Your task to perform on an android device: show emergency info Image 0: 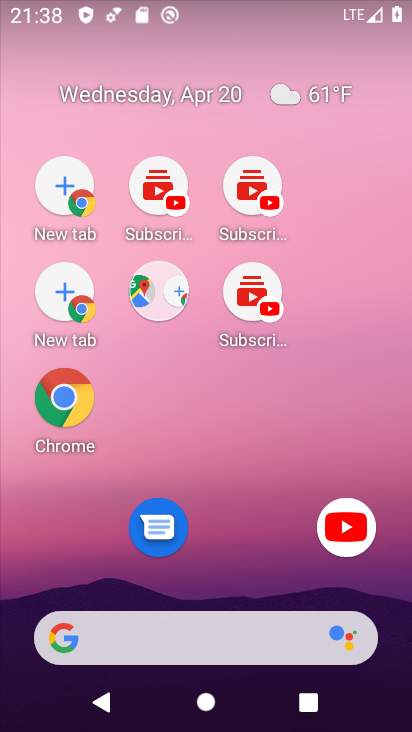
Step 0: drag from (234, 712) to (158, 134)
Your task to perform on an android device: show emergency info Image 1: 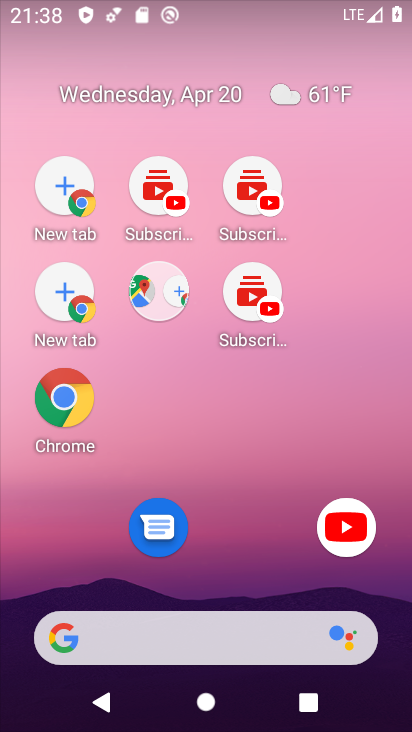
Step 1: drag from (276, 698) to (230, 208)
Your task to perform on an android device: show emergency info Image 2: 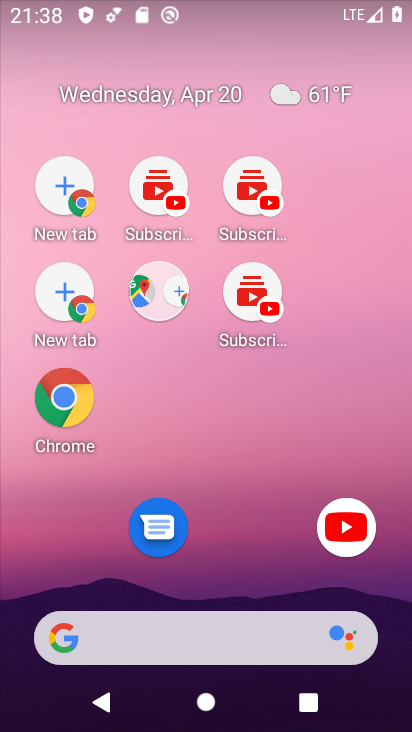
Step 2: drag from (227, 431) to (162, 168)
Your task to perform on an android device: show emergency info Image 3: 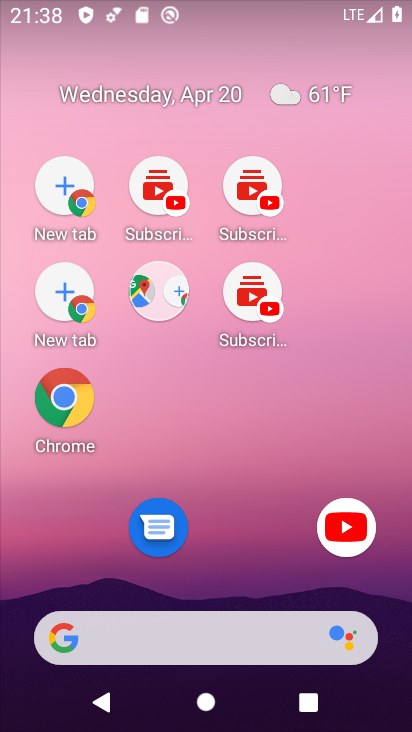
Step 3: drag from (235, 376) to (210, 193)
Your task to perform on an android device: show emergency info Image 4: 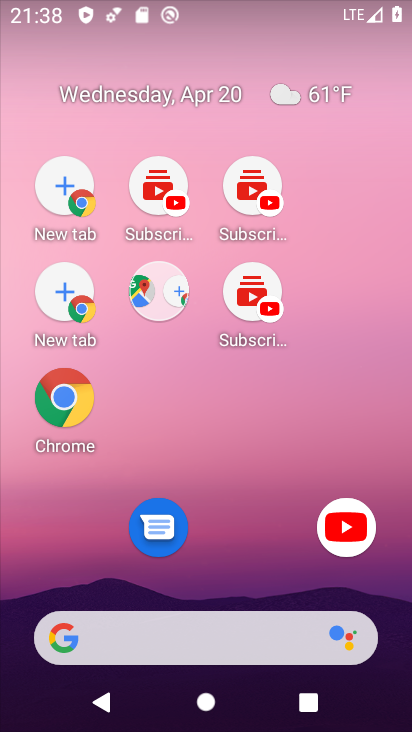
Step 4: drag from (290, 553) to (141, 107)
Your task to perform on an android device: show emergency info Image 5: 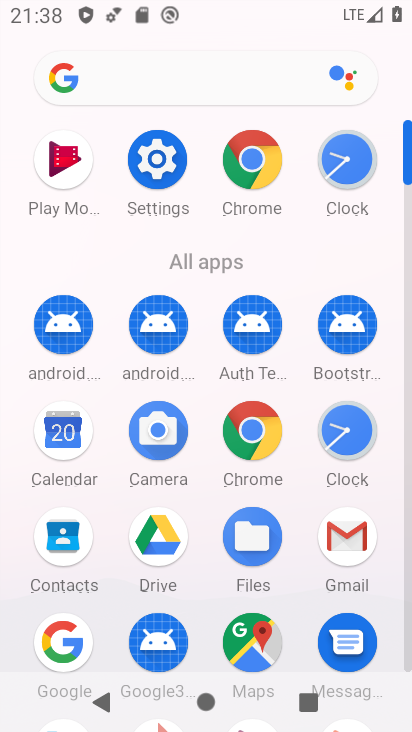
Step 5: click (145, 164)
Your task to perform on an android device: show emergency info Image 6: 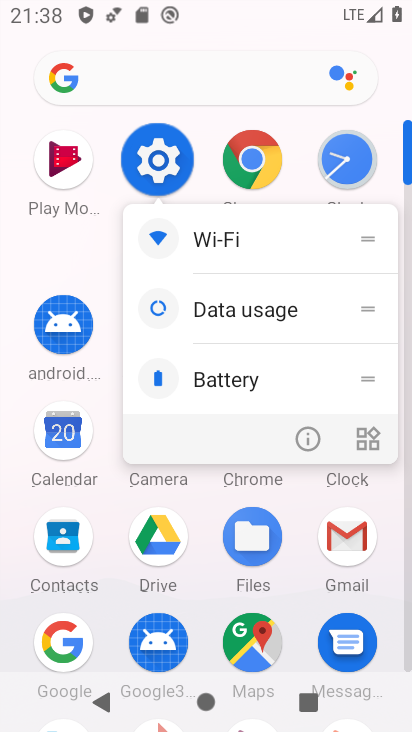
Step 6: click (150, 159)
Your task to perform on an android device: show emergency info Image 7: 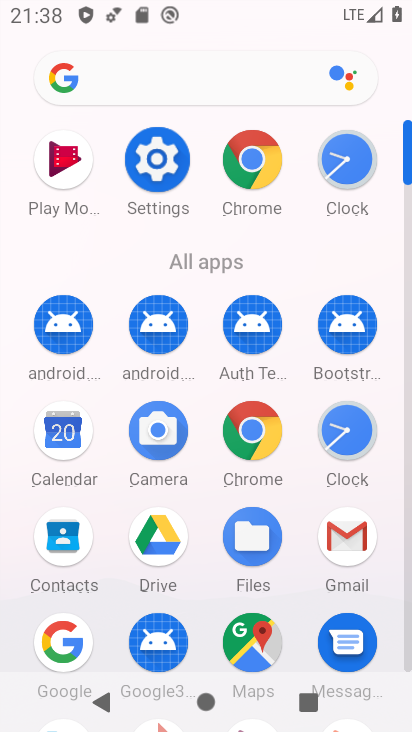
Step 7: click (156, 155)
Your task to perform on an android device: show emergency info Image 8: 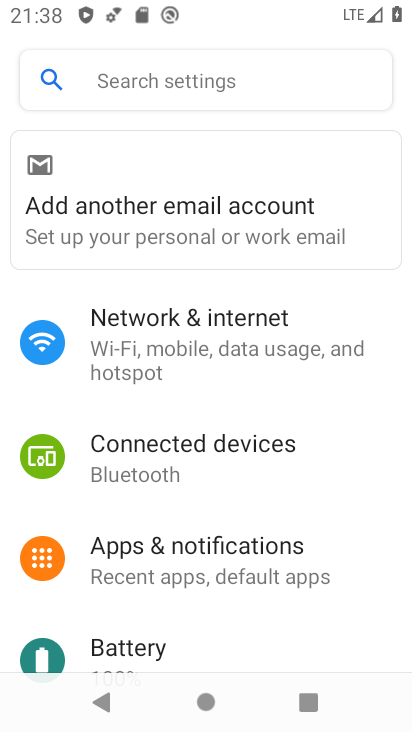
Step 8: drag from (174, 298) to (224, 342)
Your task to perform on an android device: show emergency info Image 9: 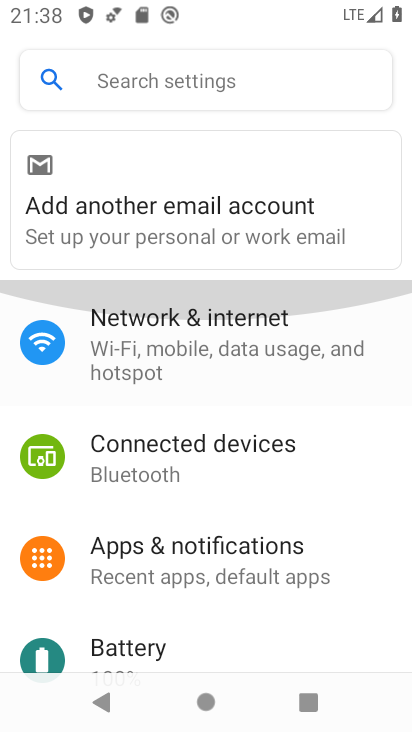
Step 9: drag from (257, 522) to (228, 281)
Your task to perform on an android device: show emergency info Image 10: 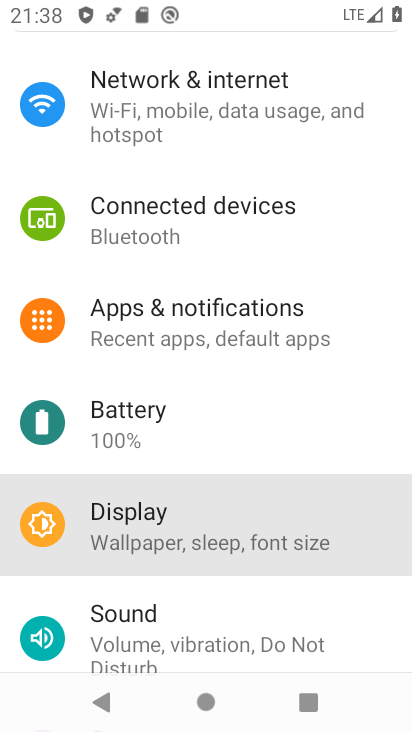
Step 10: drag from (215, 532) to (211, 297)
Your task to perform on an android device: show emergency info Image 11: 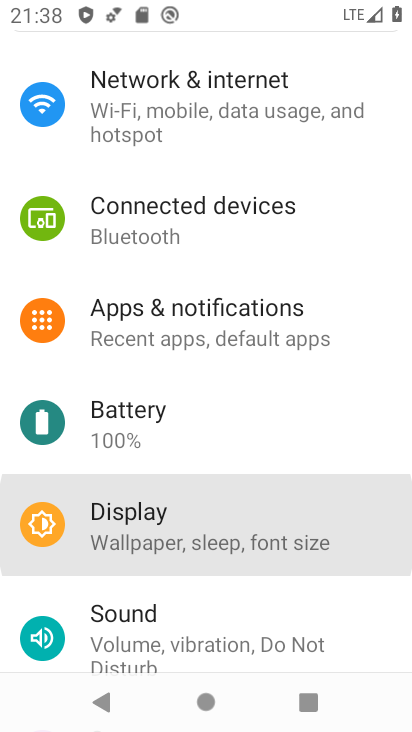
Step 11: drag from (211, 504) to (164, 175)
Your task to perform on an android device: show emergency info Image 12: 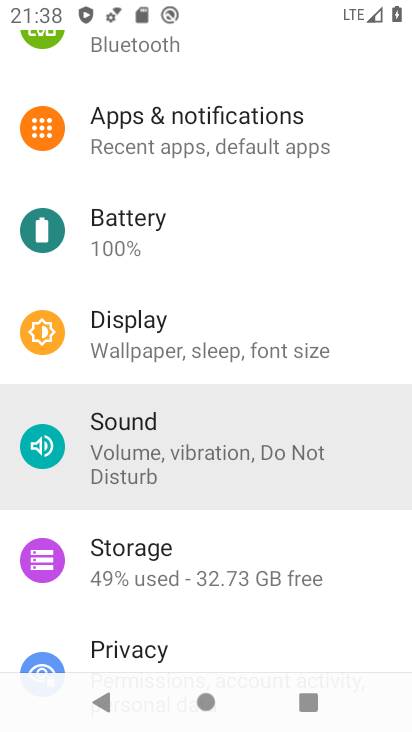
Step 12: drag from (146, 520) to (150, 139)
Your task to perform on an android device: show emergency info Image 13: 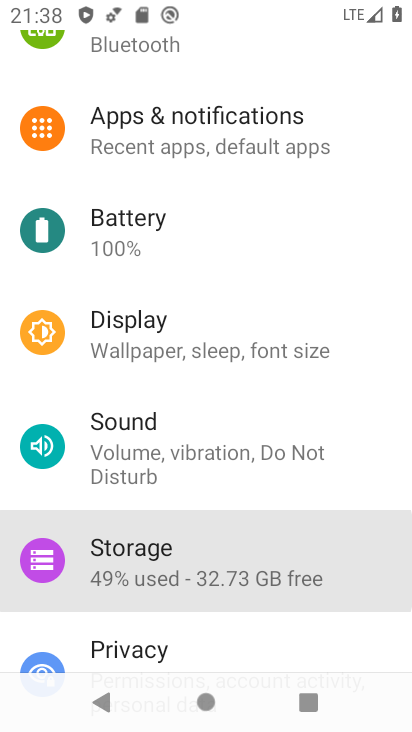
Step 13: drag from (166, 527) to (176, 237)
Your task to perform on an android device: show emergency info Image 14: 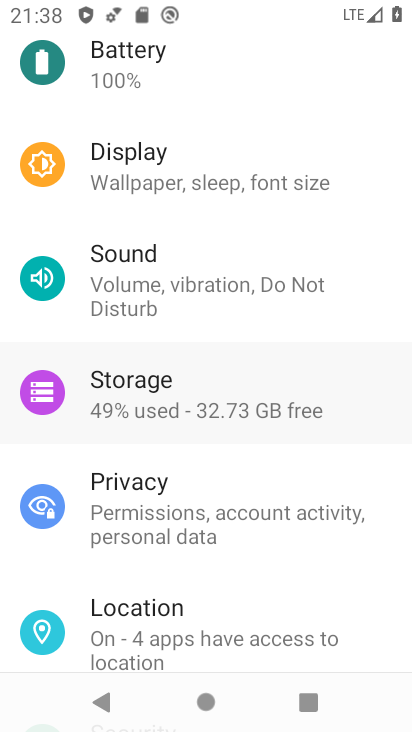
Step 14: drag from (202, 349) to (202, 205)
Your task to perform on an android device: show emergency info Image 15: 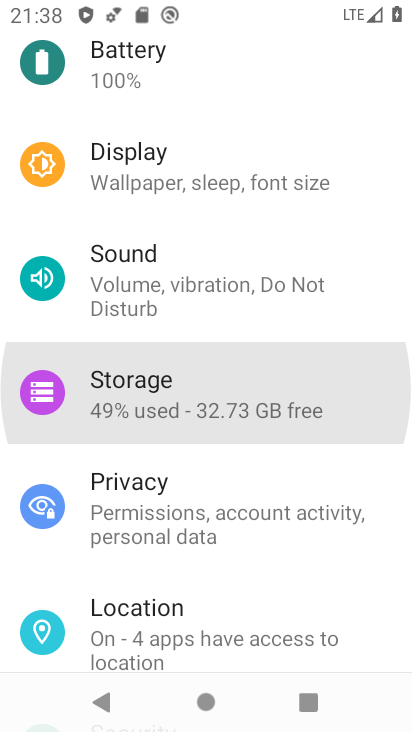
Step 15: drag from (174, 527) to (171, 245)
Your task to perform on an android device: show emergency info Image 16: 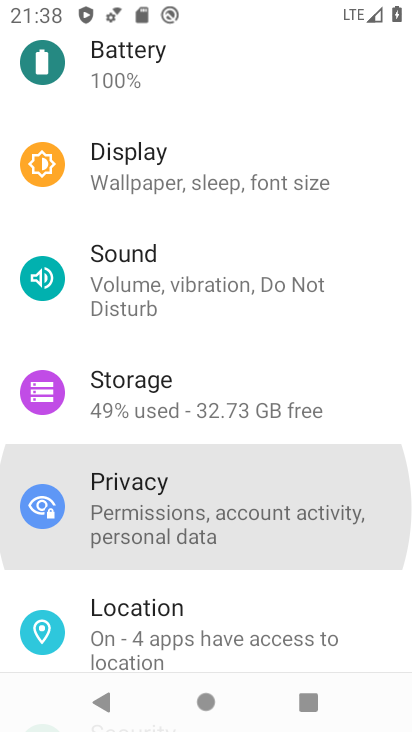
Step 16: drag from (191, 546) to (197, 185)
Your task to perform on an android device: show emergency info Image 17: 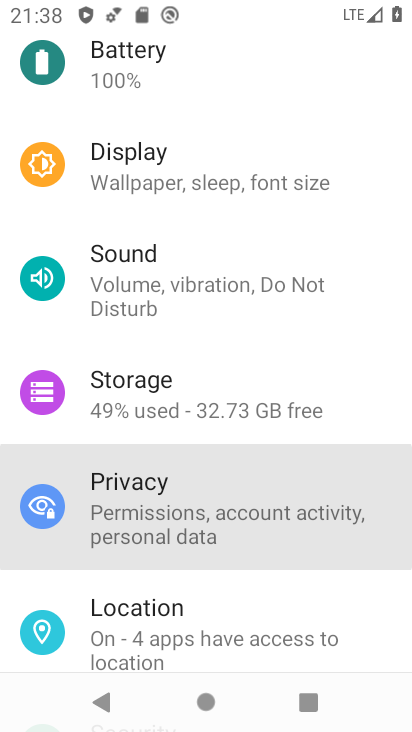
Step 17: drag from (192, 380) to (192, 196)
Your task to perform on an android device: show emergency info Image 18: 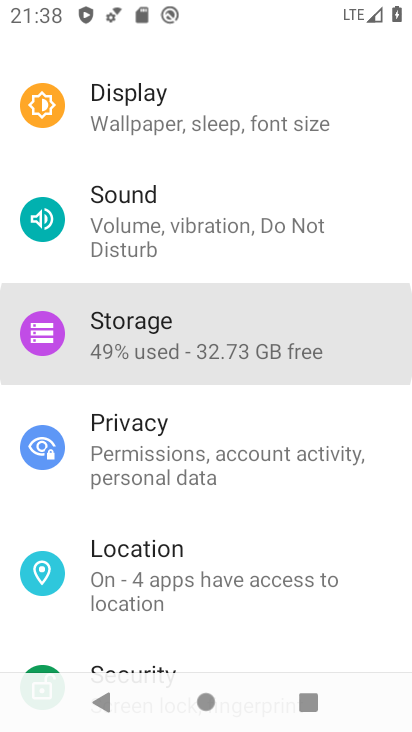
Step 18: drag from (214, 444) to (214, 213)
Your task to perform on an android device: show emergency info Image 19: 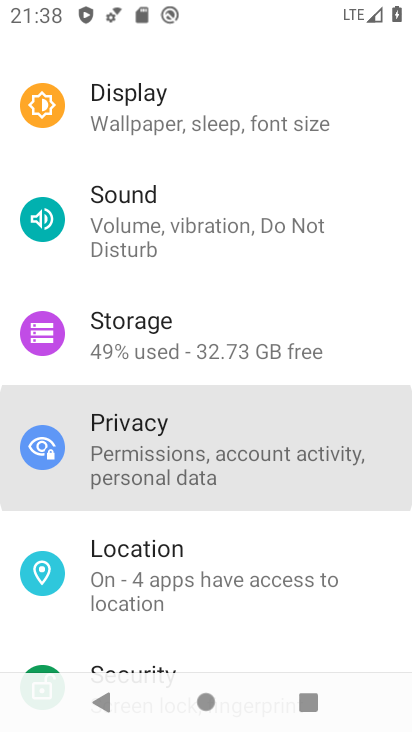
Step 19: drag from (220, 376) to (235, 105)
Your task to perform on an android device: show emergency info Image 20: 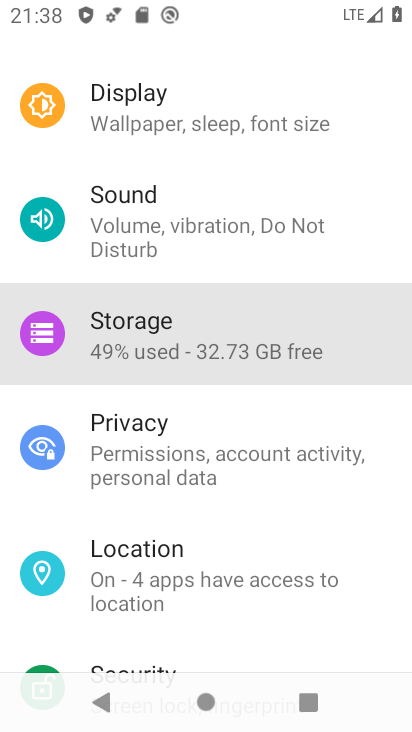
Step 20: drag from (176, 283) to (176, 156)
Your task to perform on an android device: show emergency info Image 21: 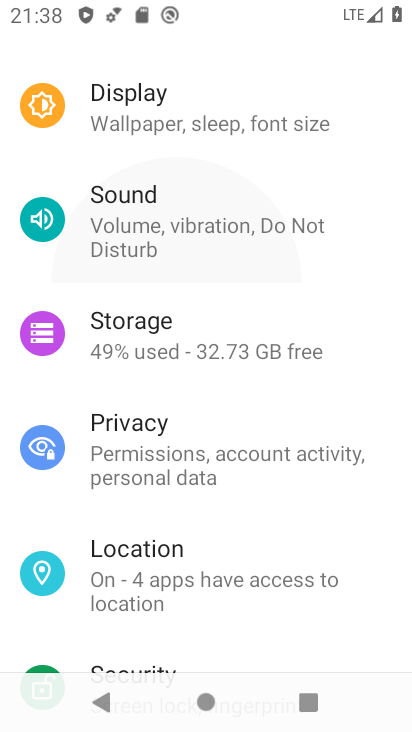
Step 21: drag from (252, 509) to (242, 91)
Your task to perform on an android device: show emergency info Image 22: 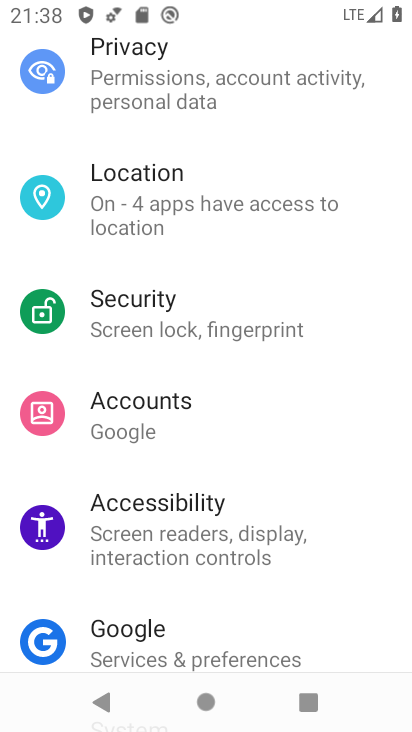
Step 22: drag from (253, 542) to (277, 110)
Your task to perform on an android device: show emergency info Image 23: 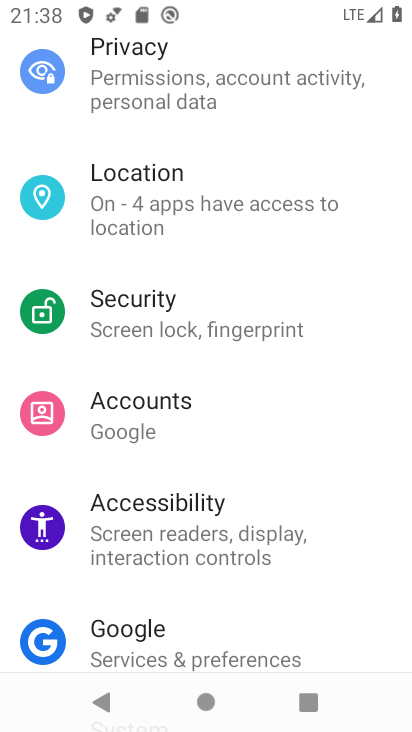
Step 23: drag from (178, 549) to (190, 208)
Your task to perform on an android device: show emergency info Image 24: 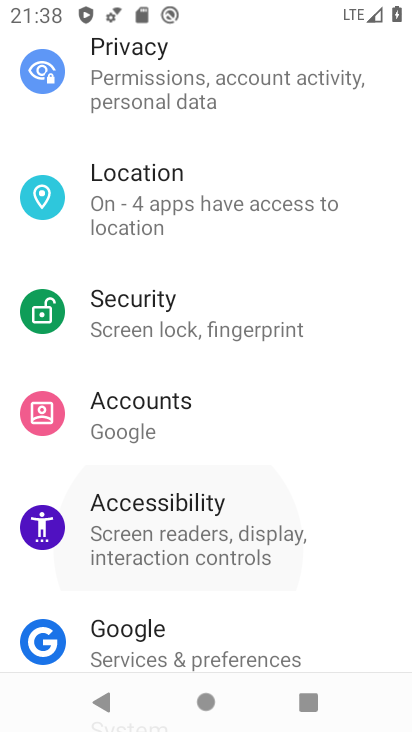
Step 24: click (197, 195)
Your task to perform on an android device: show emergency info Image 25: 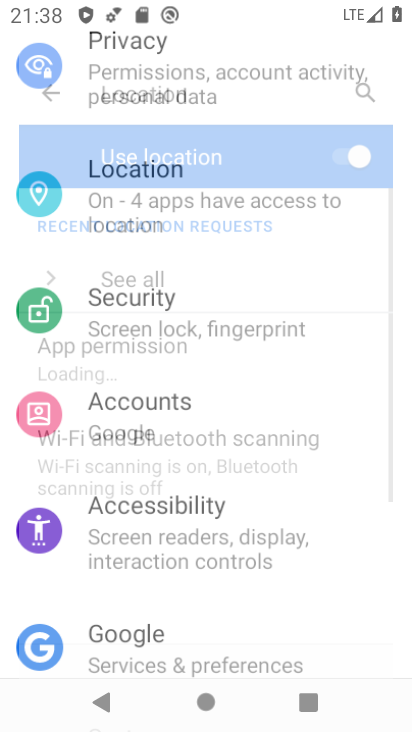
Step 25: drag from (217, 384) to (243, 157)
Your task to perform on an android device: show emergency info Image 26: 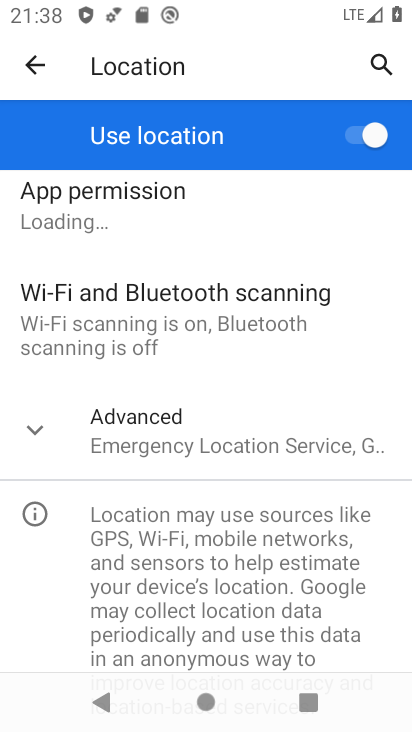
Step 26: drag from (212, 598) to (181, 374)
Your task to perform on an android device: show emergency info Image 27: 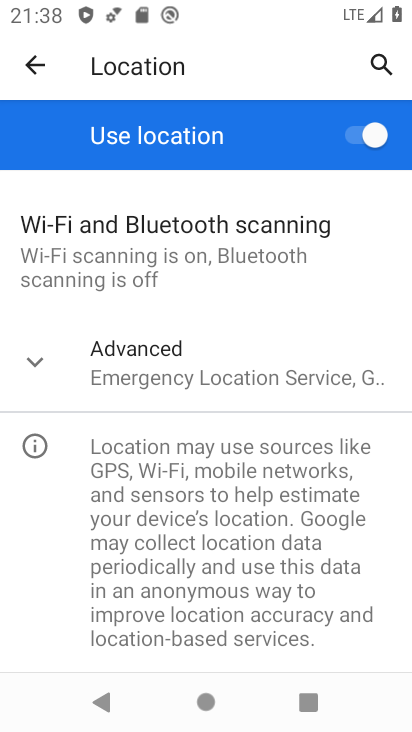
Step 27: click (31, 58)
Your task to perform on an android device: show emergency info Image 28: 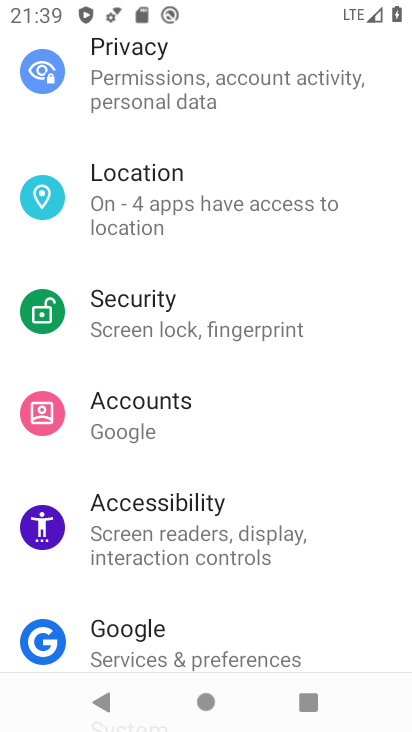
Step 28: drag from (179, 551) to (184, 158)
Your task to perform on an android device: show emergency info Image 29: 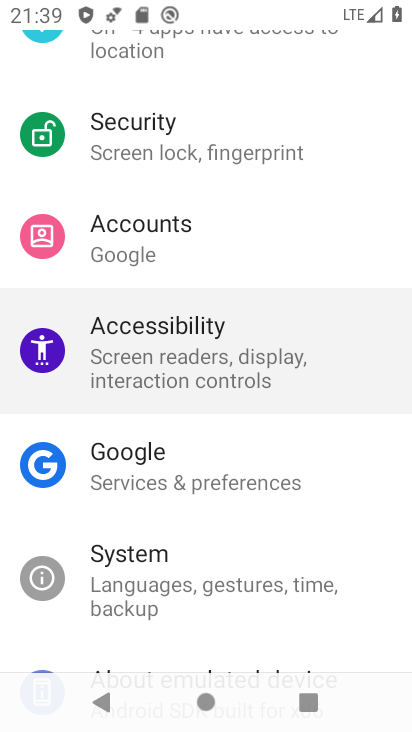
Step 29: drag from (234, 542) to (209, 194)
Your task to perform on an android device: show emergency info Image 30: 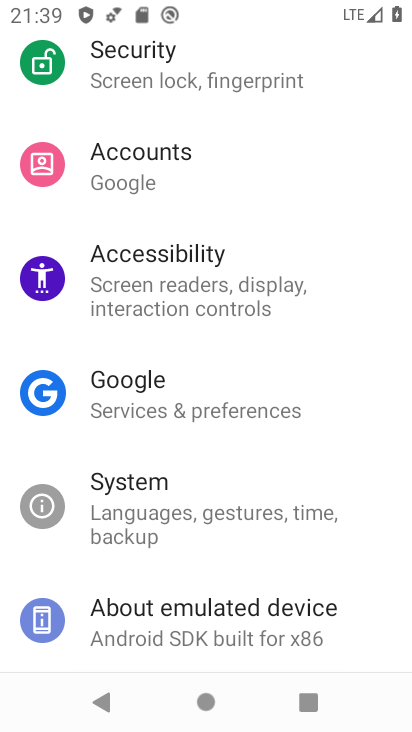
Step 30: drag from (190, 477) to (195, 219)
Your task to perform on an android device: show emergency info Image 31: 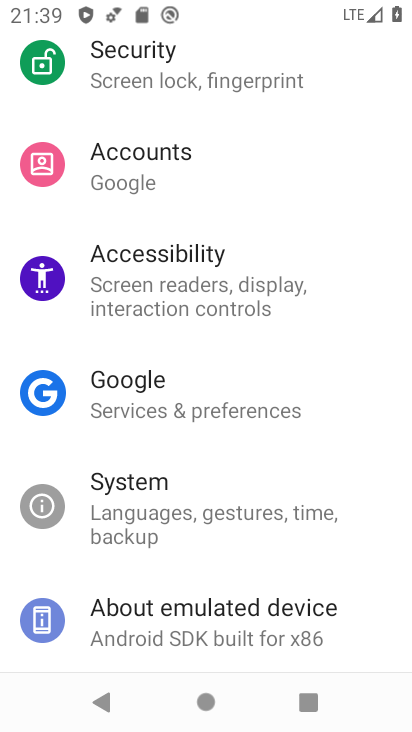
Step 31: click (209, 628)
Your task to perform on an android device: show emergency info Image 32: 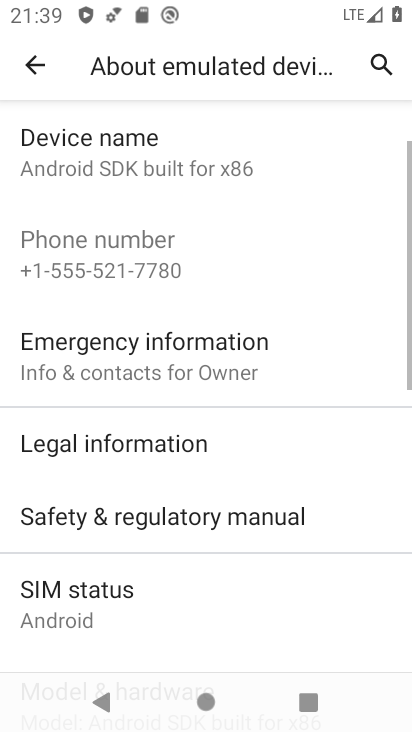
Step 32: click (122, 360)
Your task to perform on an android device: show emergency info Image 33: 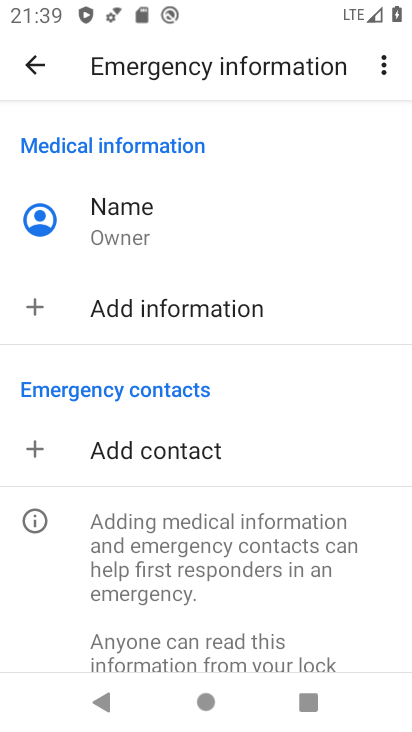
Step 33: task complete